Your task to perform on an android device: check google app version Image 0: 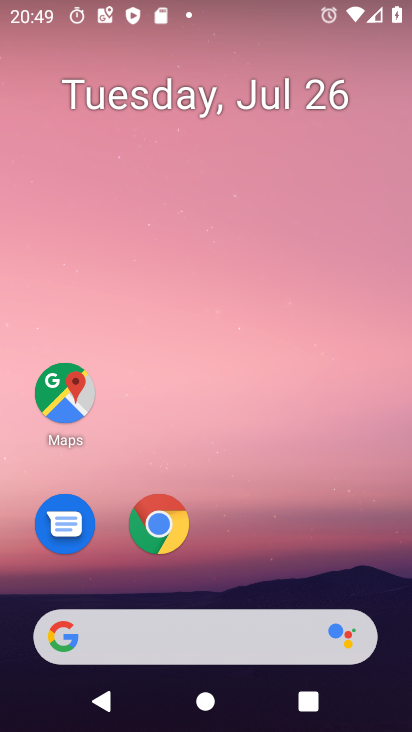
Step 0: click (157, 632)
Your task to perform on an android device: check google app version Image 1: 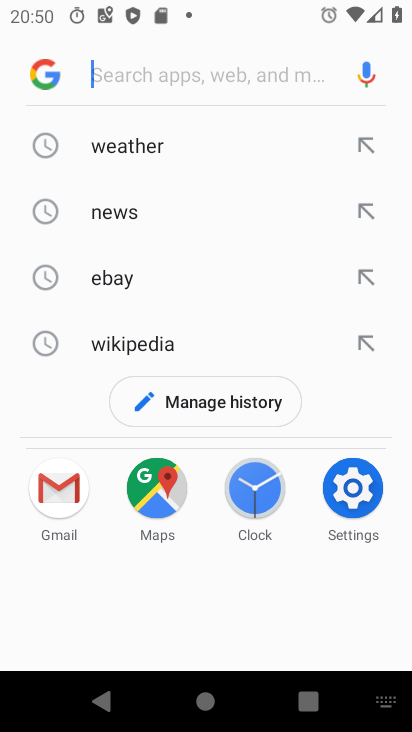
Step 1: click (47, 76)
Your task to perform on an android device: check google app version Image 2: 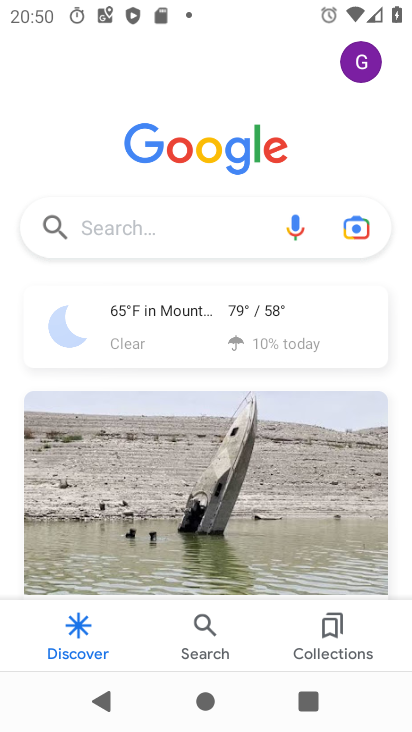
Step 2: click (353, 62)
Your task to perform on an android device: check google app version Image 3: 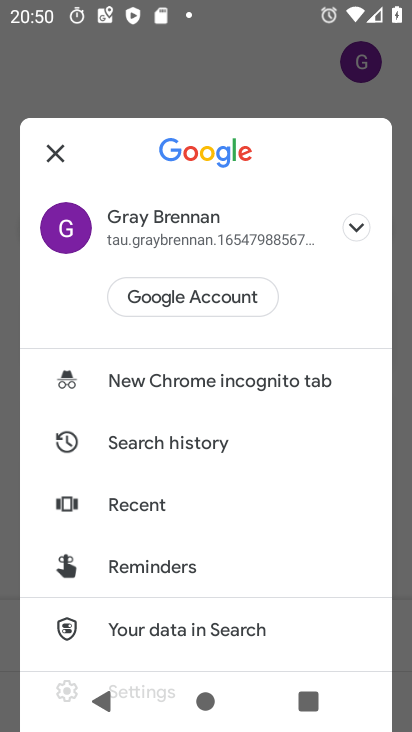
Step 3: drag from (228, 494) to (292, 49)
Your task to perform on an android device: check google app version Image 4: 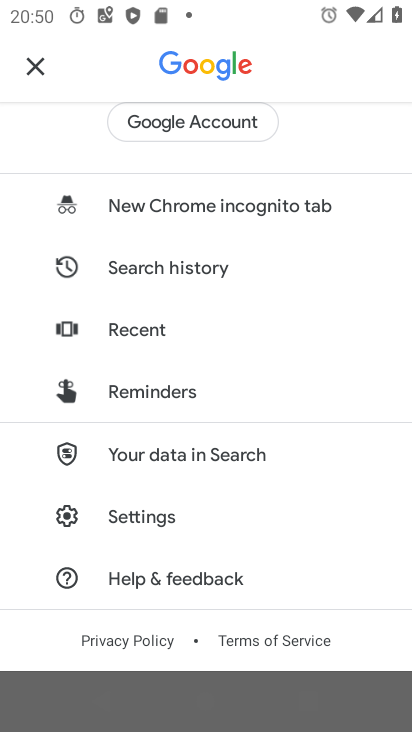
Step 4: click (150, 503)
Your task to perform on an android device: check google app version Image 5: 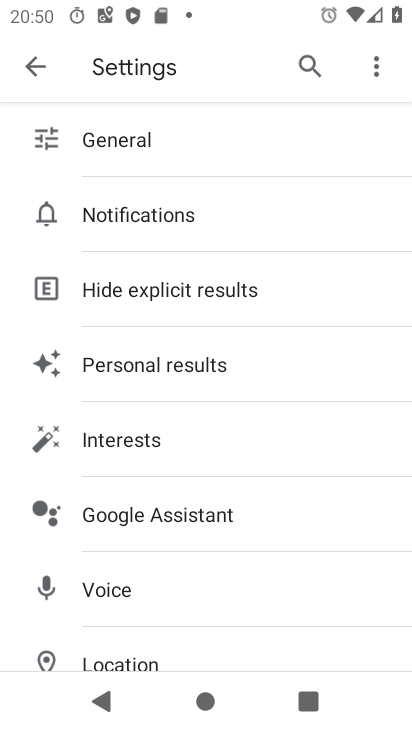
Step 5: drag from (202, 565) to (229, 183)
Your task to perform on an android device: check google app version Image 6: 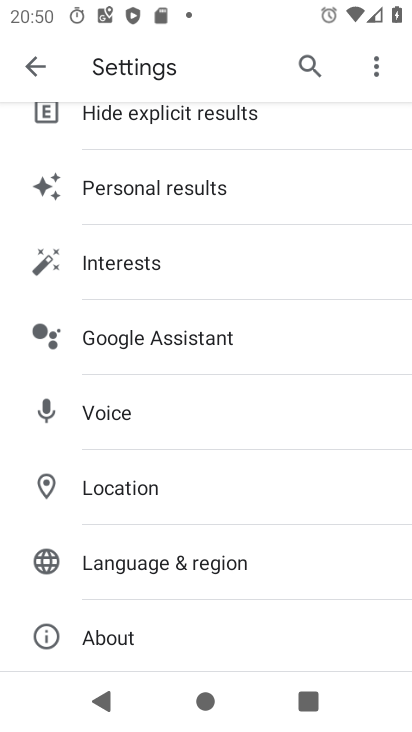
Step 6: click (110, 626)
Your task to perform on an android device: check google app version Image 7: 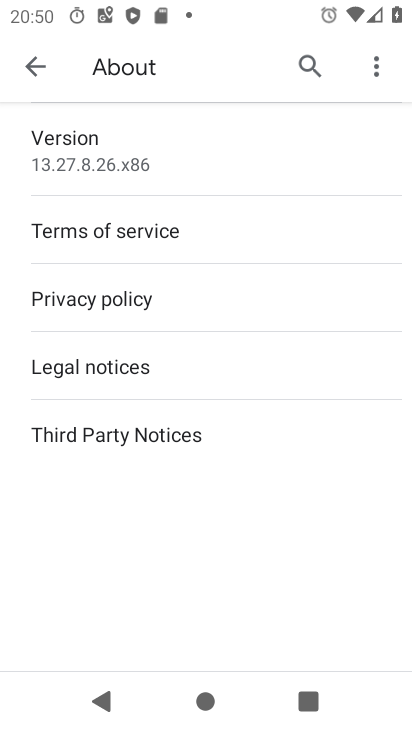
Step 7: task complete